Your task to perform on an android device: Add "dell xps" to the cart on target.com, then select checkout. Image 0: 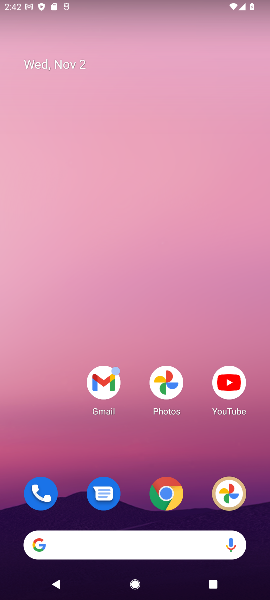
Step 0: click (163, 492)
Your task to perform on an android device: Add "dell xps" to the cart on target.com, then select checkout. Image 1: 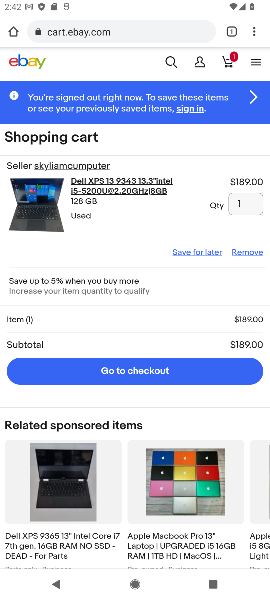
Step 1: click (96, 31)
Your task to perform on an android device: Add "dell xps" to the cart on target.com, then select checkout. Image 2: 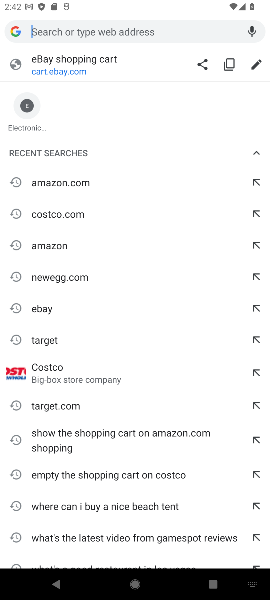
Step 2: type "target"
Your task to perform on an android device: Add "dell xps" to the cart on target.com, then select checkout. Image 3: 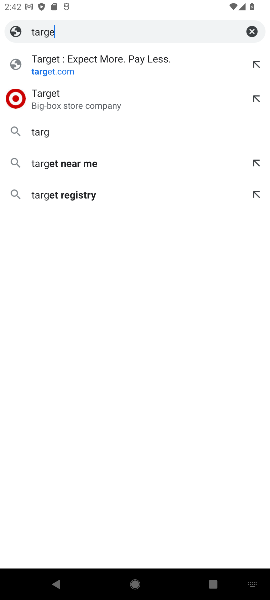
Step 3: press enter
Your task to perform on an android device: Add "dell xps" to the cart on target.com, then select checkout. Image 4: 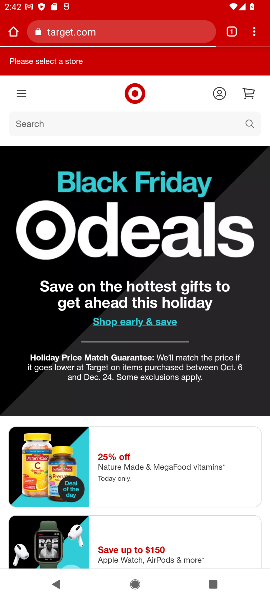
Step 4: click (248, 123)
Your task to perform on an android device: Add "dell xps" to the cart on target.com, then select checkout. Image 5: 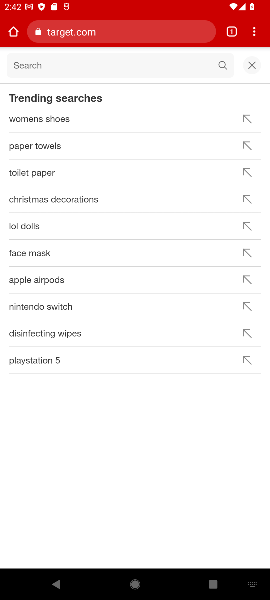
Step 5: type "dell xps"
Your task to perform on an android device: Add "dell xps" to the cart on target.com, then select checkout. Image 6: 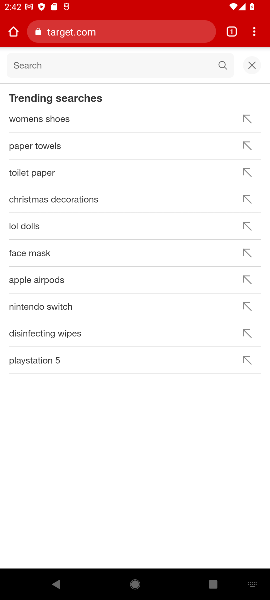
Step 6: press enter
Your task to perform on an android device: Add "dell xps" to the cart on target.com, then select checkout. Image 7: 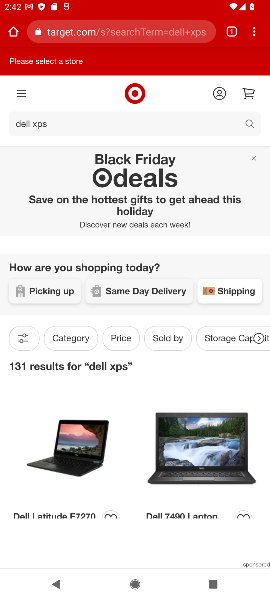
Step 7: drag from (145, 431) to (137, 239)
Your task to perform on an android device: Add "dell xps" to the cart on target.com, then select checkout. Image 8: 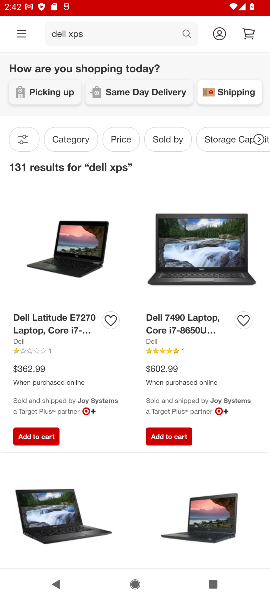
Step 8: drag from (163, 372) to (174, 230)
Your task to perform on an android device: Add "dell xps" to the cart on target.com, then select checkout. Image 9: 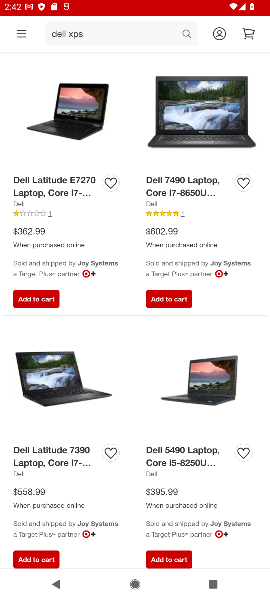
Step 9: drag from (136, 426) to (134, 221)
Your task to perform on an android device: Add "dell xps" to the cart on target.com, then select checkout. Image 10: 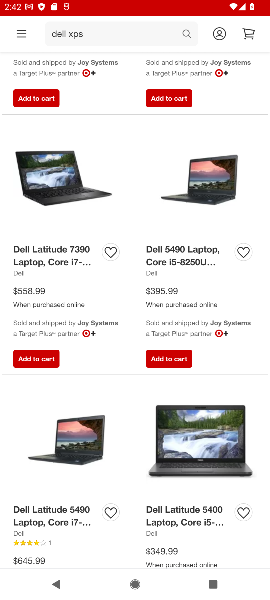
Step 10: drag from (141, 499) to (171, 263)
Your task to perform on an android device: Add "dell xps" to the cart on target.com, then select checkout. Image 11: 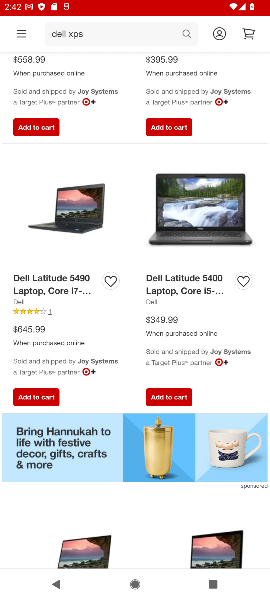
Step 11: drag from (143, 491) to (159, 250)
Your task to perform on an android device: Add "dell xps" to the cart on target.com, then select checkout. Image 12: 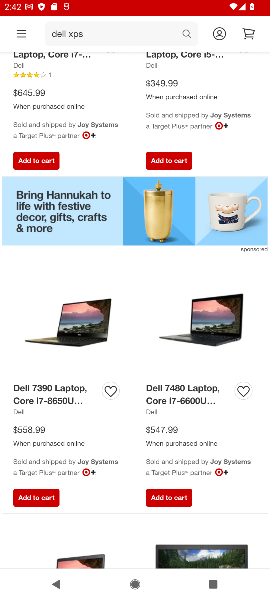
Step 12: drag from (168, 474) to (171, 252)
Your task to perform on an android device: Add "dell xps" to the cart on target.com, then select checkout. Image 13: 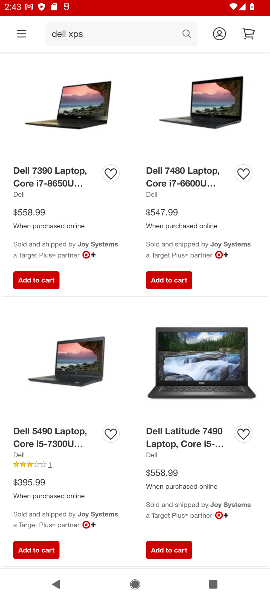
Step 13: drag from (165, 435) to (158, 247)
Your task to perform on an android device: Add "dell xps" to the cart on target.com, then select checkout. Image 14: 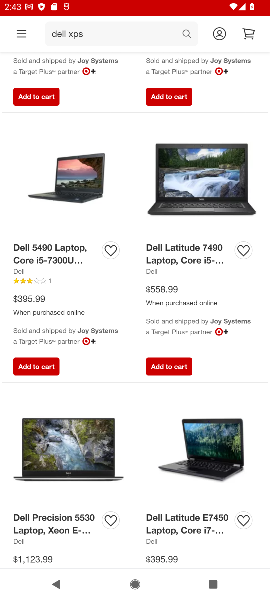
Step 14: drag from (167, 417) to (181, 174)
Your task to perform on an android device: Add "dell xps" to the cart on target.com, then select checkout. Image 15: 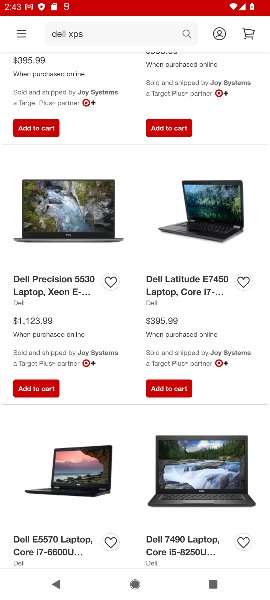
Step 15: drag from (130, 453) to (150, 176)
Your task to perform on an android device: Add "dell xps" to the cart on target.com, then select checkout. Image 16: 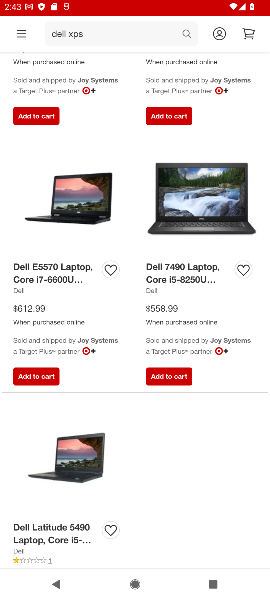
Step 16: drag from (185, 438) to (125, 124)
Your task to perform on an android device: Add "dell xps" to the cart on target.com, then select checkout. Image 17: 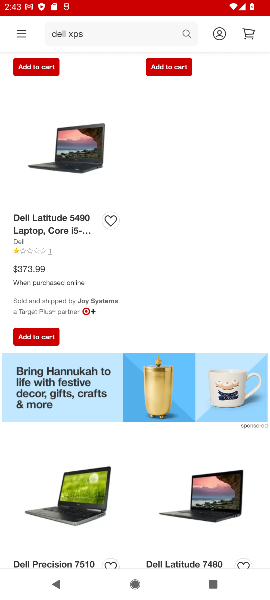
Step 17: drag from (157, 446) to (175, 151)
Your task to perform on an android device: Add "dell xps" to the cart on target.com, then select checkout. Image 18: 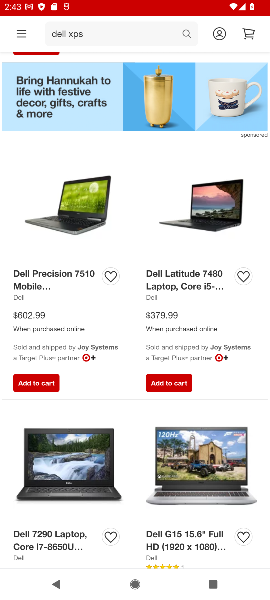
Step 18: drag from (169, 466) to (169, 522)
Your task to perform on an android device: Add "dell xps" to the cart on target.com, then select checkout. Image 19: 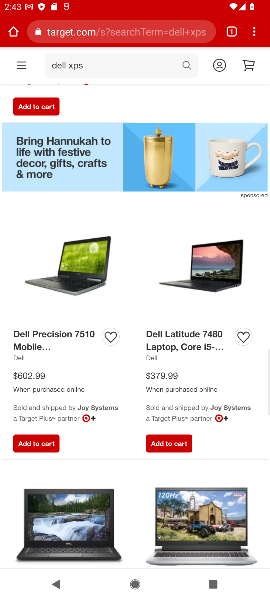
Step 19: drag from (132, 148) to (238, 580)
Your task to perform on an android device: Add "dell xps" to the cart on target.com, then select checkout. Image 20: 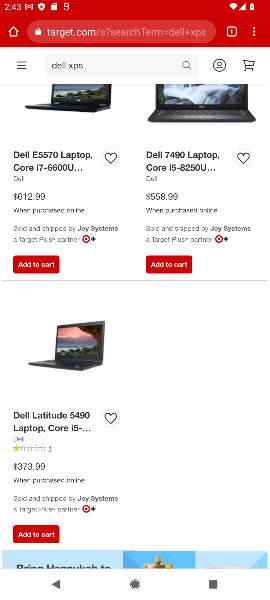
Step 20: drag from (151, 127) to (196, 517)
Your task to perform on an android device: Add "dell xps" to the cart on target.com, then select checkout. Image 21: 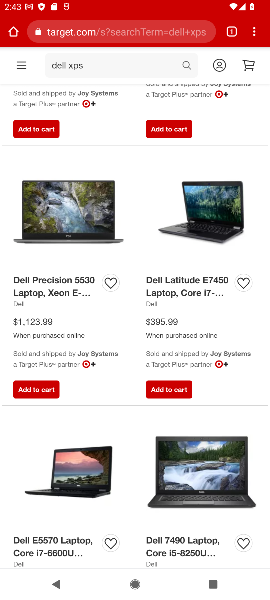
Step 21: drag from (169, 122) to (264, 262)
Your task to perform on an android device: Add "dell xps" to the cart on target.com, then select checkout. Image 22: 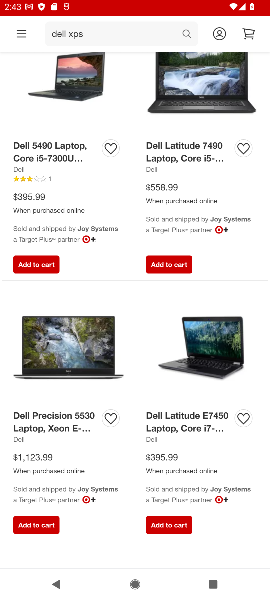
Step 22: drag from (178, 121) to (238, 585)
Your task to perform on an android device: Add "dell xps" to the cart on target.com, then select checkout. Image 23: 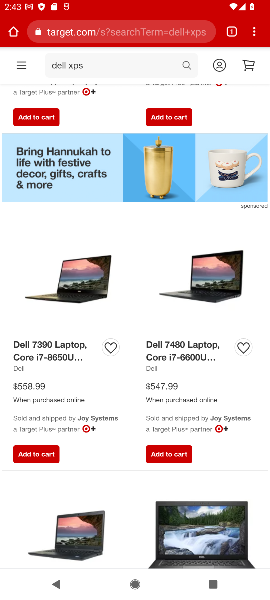
Step 23: drag from (123, 266) to (199, 571)
Your task to perform on an android device: Add "dell xps" to the cart on target.com, then select checkout. Image 24: 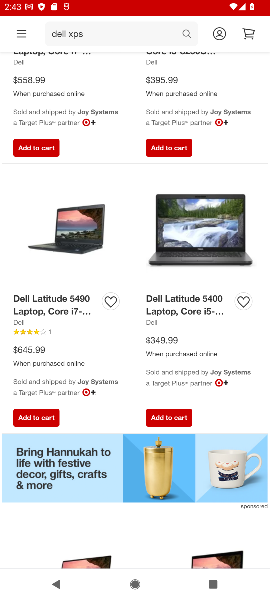
Step 24: drag from (206, 95) to (256, 587)
Your task to perform on an android device: Add "dell xps" to the cart on target.com, then select checkout. Image 25: 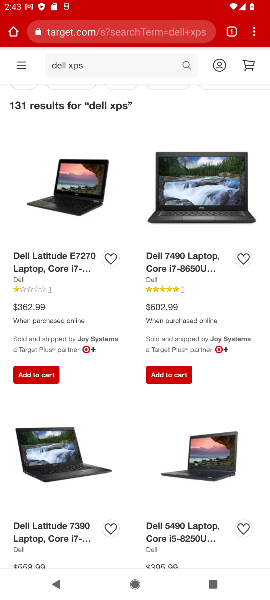
Step 25: drag from (183, 164) to (184, 472)
Your task to perform on an android device: Add "dell xps" to the cart on target.com, then select checkout. Image 26: 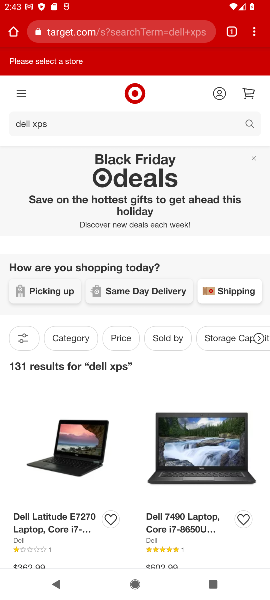
Step 26: click (57, 438)
Your task to perform on an android device: Add "dell xps" to the cart on target.com, then select checkout. Image 27: 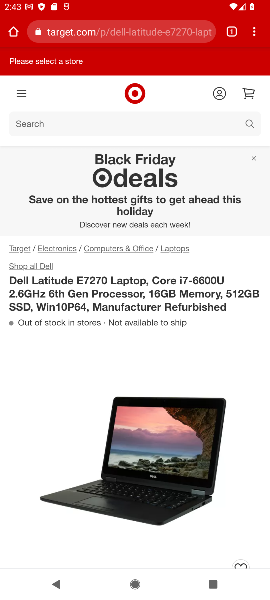
Step 27: drag from (184, 485) to (191, 156)
Your task to perform on an android device: Add "dell xps" to the cart on target.com, then select checkout. Image 28: 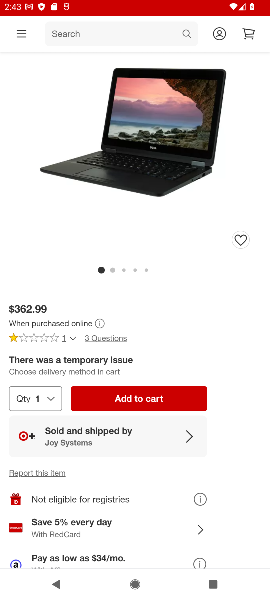
Step 28: click (172, 401)
Your task to perform on an android device: Add "dell xps" to the cart on target.com, then select checkout. Image 29: 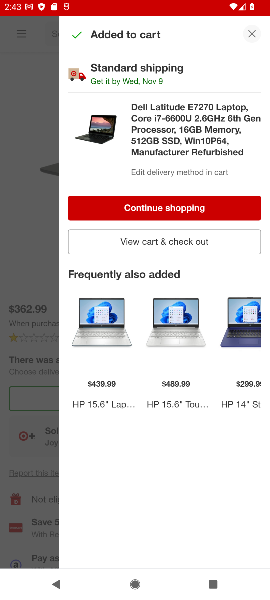
Step 29: click (252, 34)
Your task to perform on an android device: Add "dell xps" to the cart on target.com, then select checkout. Image 30: 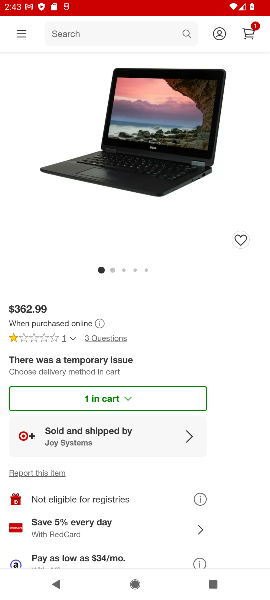
Step 30: click (248, 38)
Your task to perform on an android device: Add "dell xps" to the cart on target.com, then select checkout. Image 31: 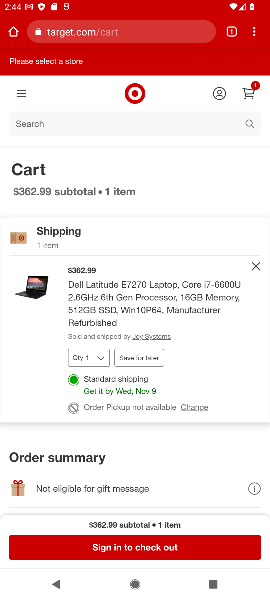
Step 31: click (151, 545)
Your task to perform on an android device: Add "dell xps" to the cart on target.com, then select checkout. Image 32: 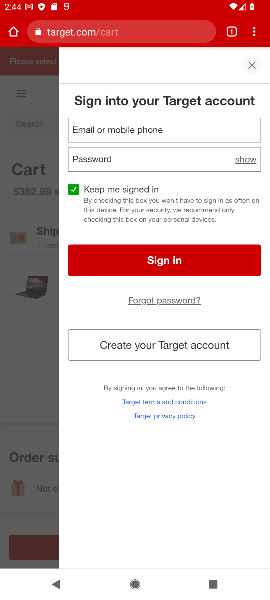
Step 32: task complete